Your task to perform on an android device: Go to wifi settings Image 0: 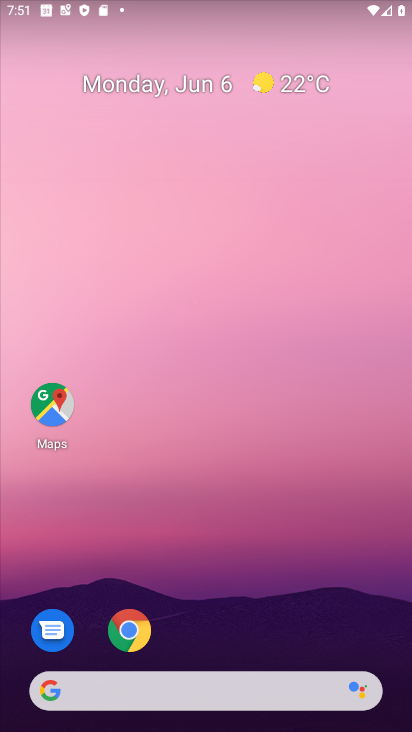
Step 0: drag from (142, 683) to (325, 13)
Your task to perform on an android device: Go to wifi settings Image 1: 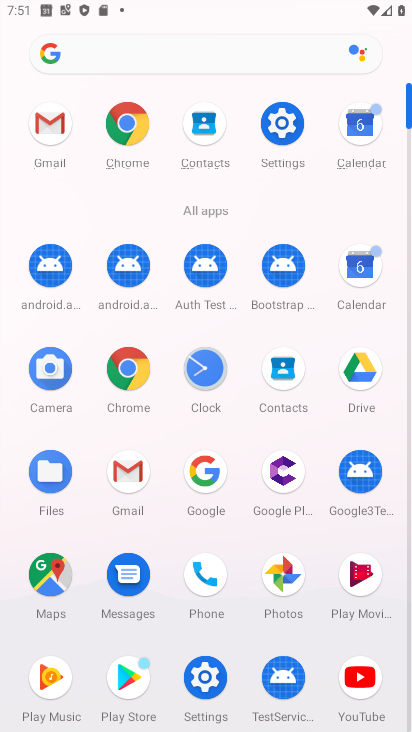
Step 1: click (281, 132)
Your task to perform on an android device: Go to wifi settings Image 2: 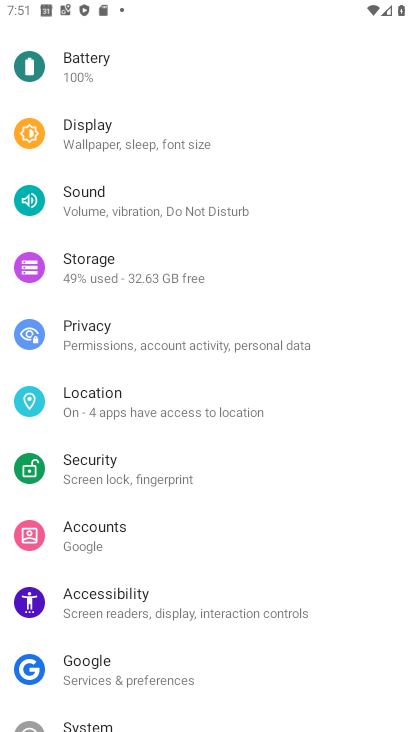
Step 2: drag from (116, 96) to (140, 682)
Your task to perform on an android device: Go to wifi settings Image 3: 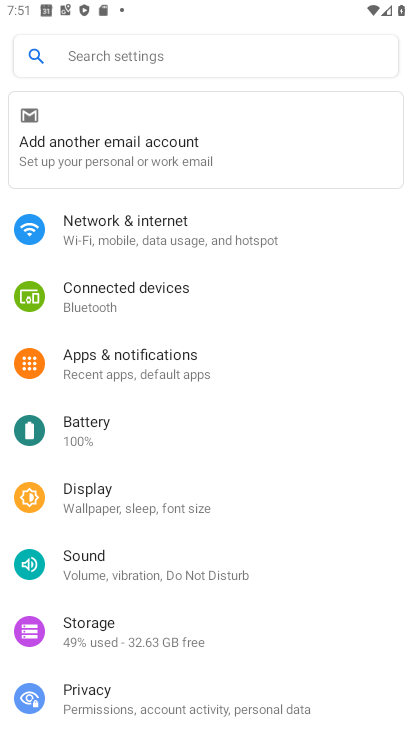
Step 3: click (137, 236)
Your task to perform on an android device: Go to wifi settings Image 4: 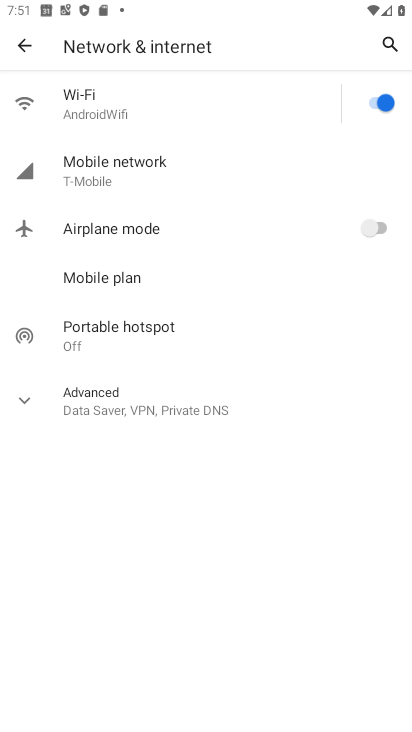
Step 4: click (117, 113)
Your task to perform on an android device: Go to wifi settings Image 5: 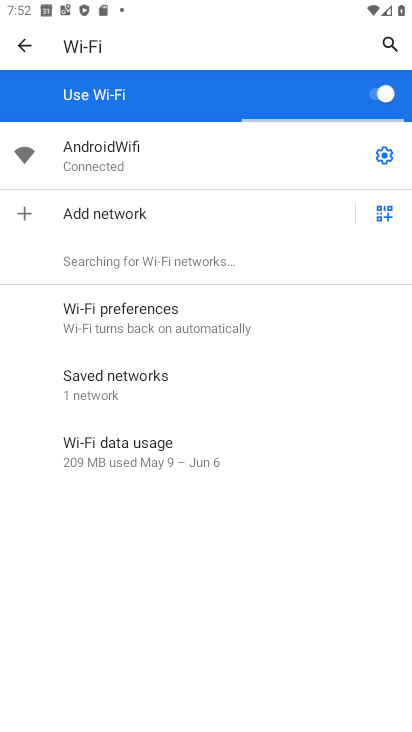
Step 5: task complete